Your task to perform on an android device: Open CNN.com Image 0: 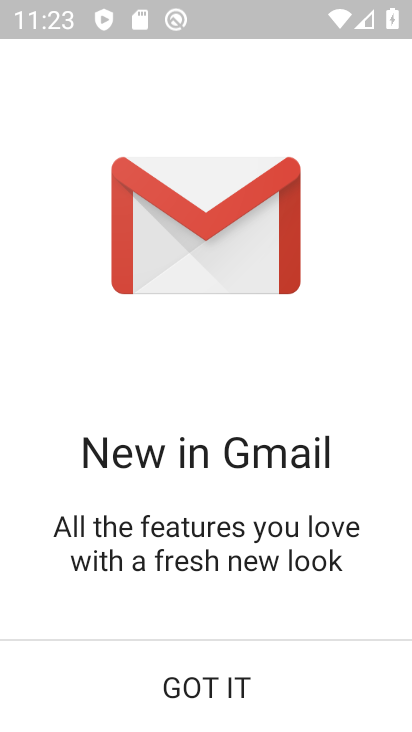
Step 0: click (228, 686)
Your task to perform on an android device: Open CNN.com Image 1: 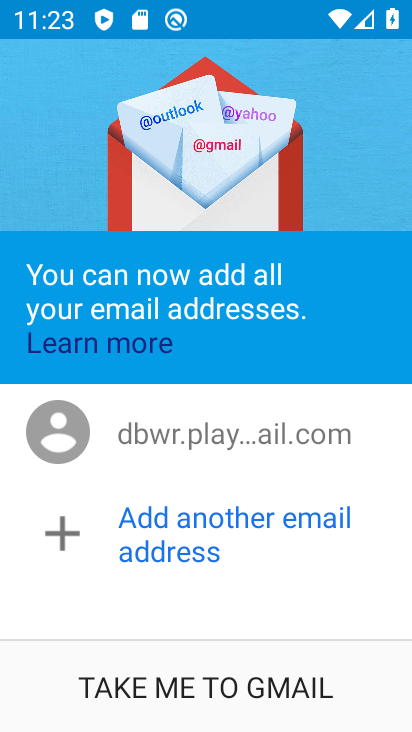
Step 1: press home button
Your task to perform on an android device: Open CNN.com Image 2: 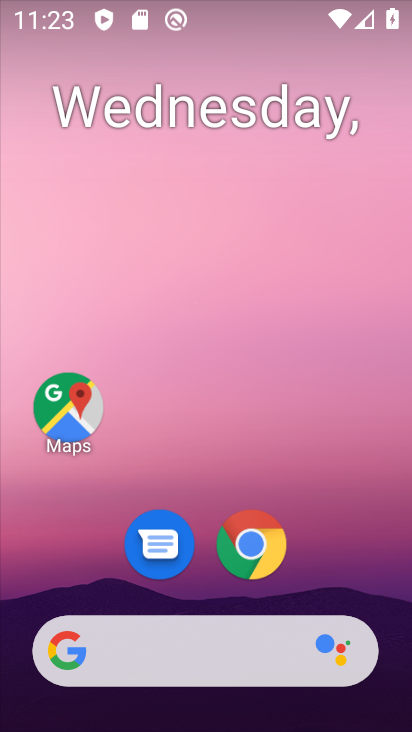
Step 2: click (260, 545)
Your task to perform on an android device: Open CNN.com Image 3: 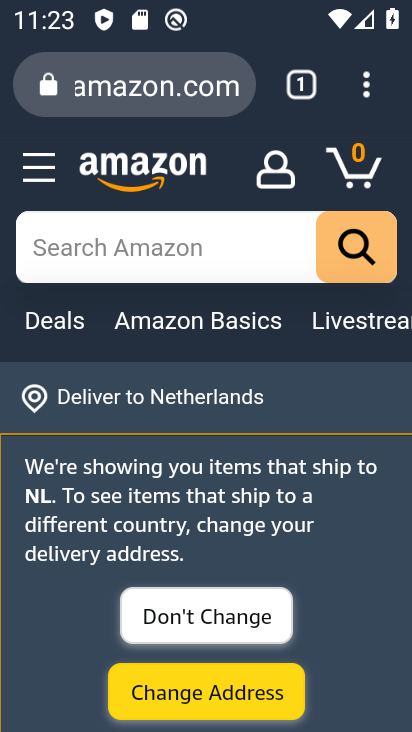
Step 3: press back button
Your task to perform on an android device: Open CNN.com Image 4: 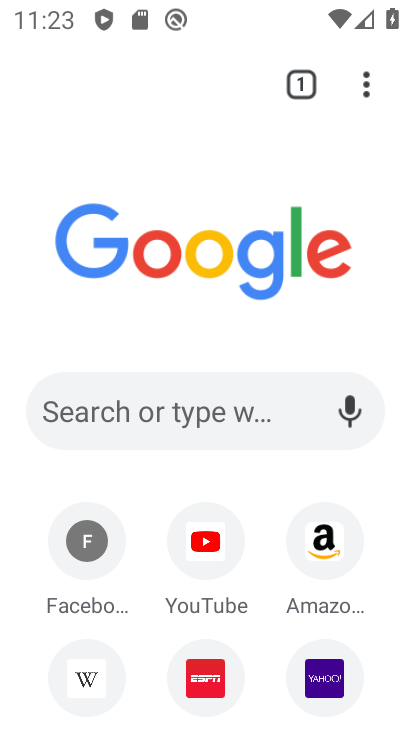
Step 4: drag from (242, 632) to (217, 475)
Your task to perform on an android device: Open CNN.com Image 5: 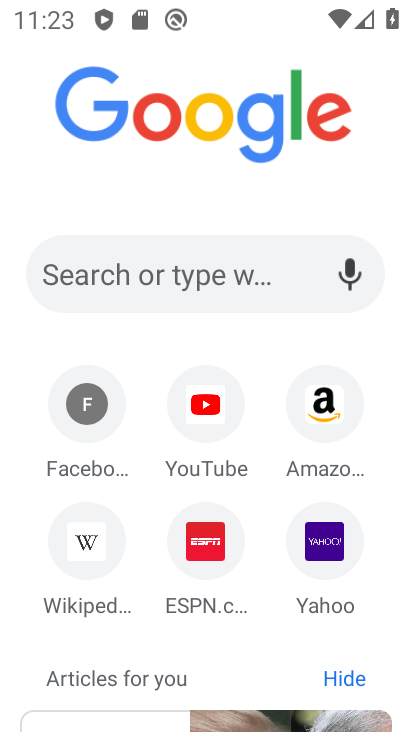
Step 5: click (90, 302)
Your task to perform on an android device: Open CNN.com Image 6: 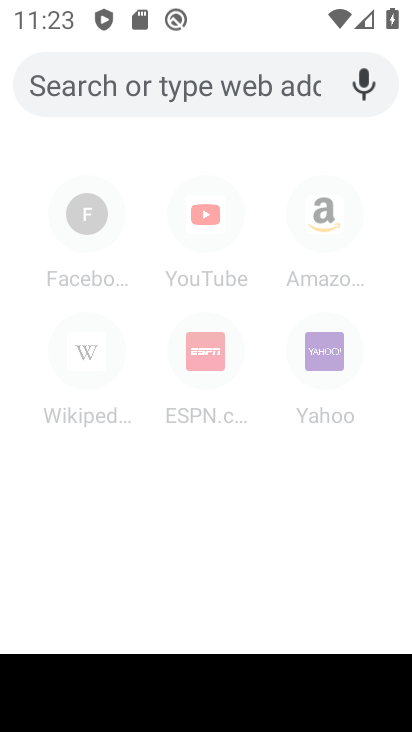
Step 6: type "www.cnn.com"
Your task to perform on an android device: Open CNN.com Image 7: 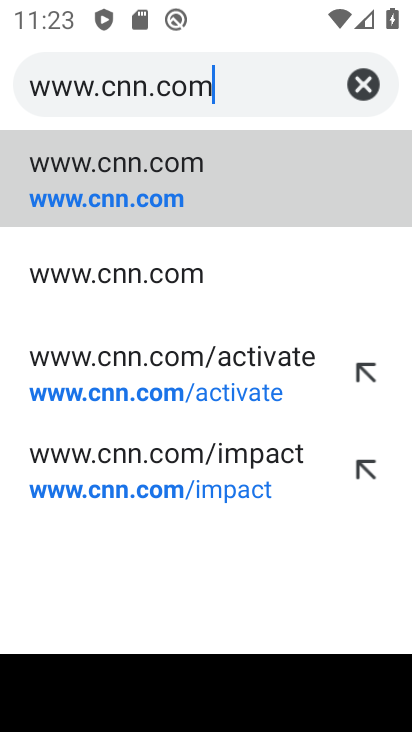
Step 7: click (114, 199)
Your task to perform on an android device: Open CNN.com Image 8: 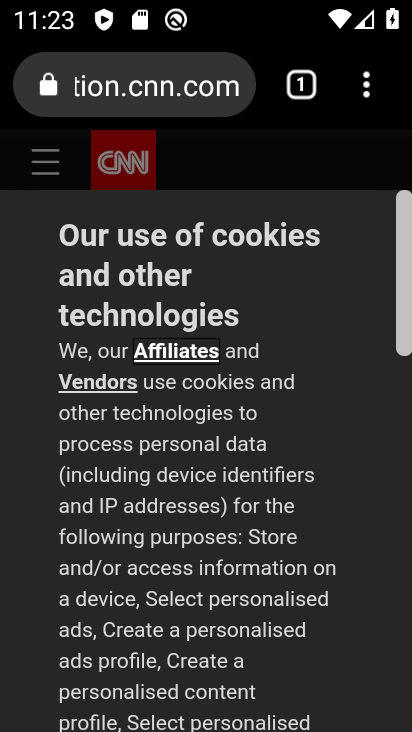
Step 8: task complete